Your task to perform on an android device: turn off priority inbox in the gmail app Image 0: 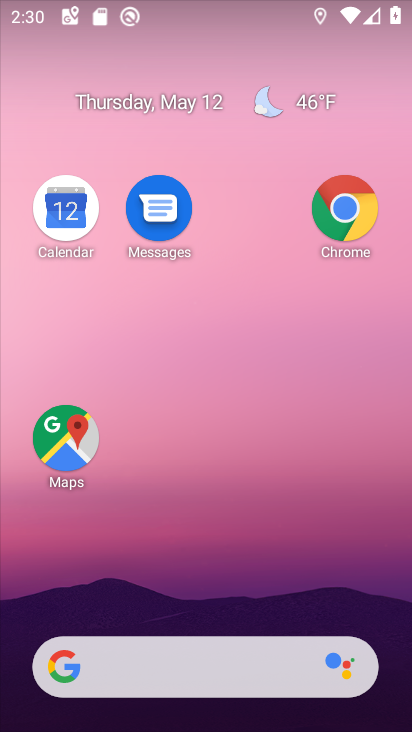
Step 0: drag from (195, 558) to (227, 335)
Your task to perform on an android device: turn off priority inbox in the gmail app Image 1: 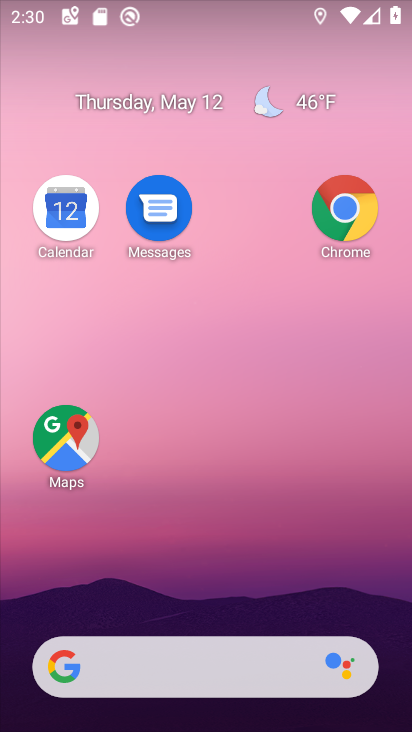
Step 1: drag from (206, 607) to (266, 62)
Your task to perform on an android device: turn off priority inbox in the gmail app Image 2: 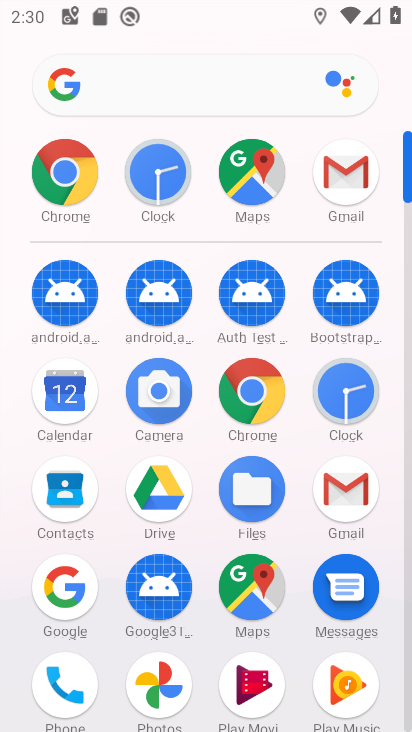
Step 2: click (330, 495)
Your task to perform on an android device: turn off priority inbox in the gmail app Image 3: 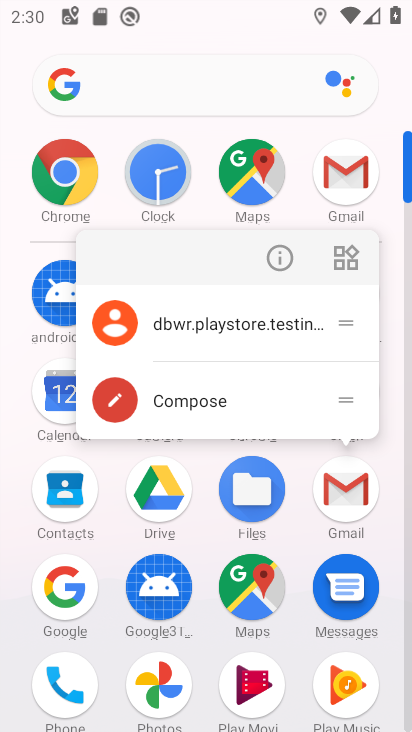
Step 3: click (291, 243)
Your task to perform on an android device: turn off priority inbox in the gmail app Image 4: 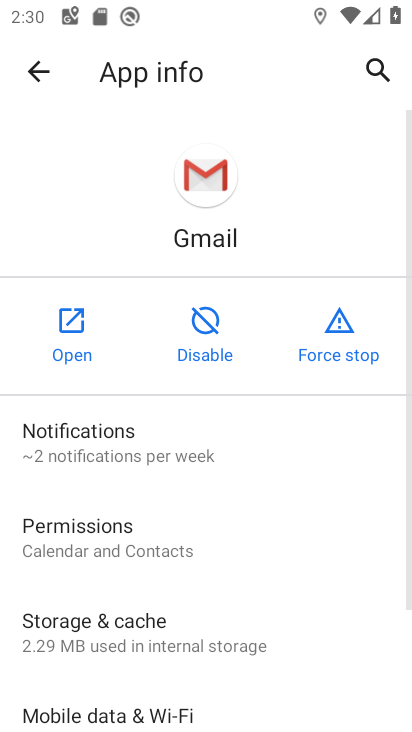
Step 4: click (57, 331)
Your task to perform on an android device: turn off priority inbox in the gmail app Image 5: 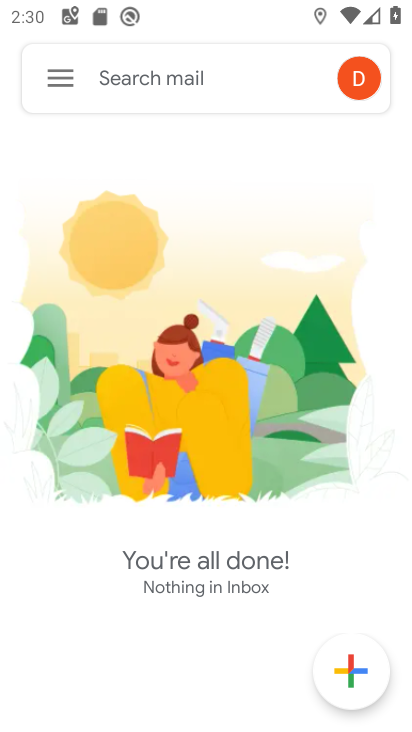
Step 5: click (63, 99)
Your task to perform on an android device: turn off priority inbox in the gmail app Image 6: 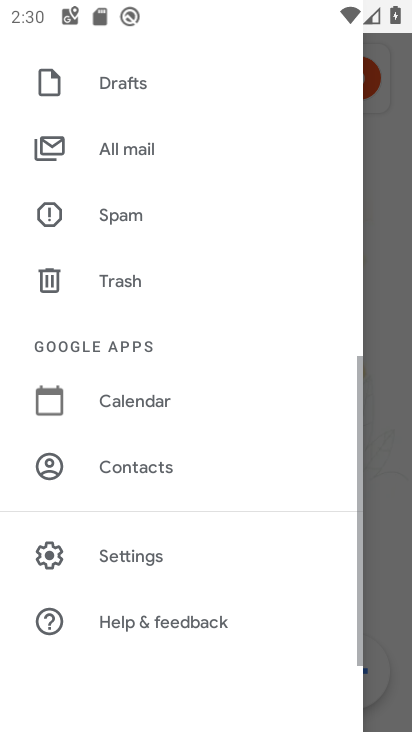
Step 6: drag from (170, 429) to (198, 94)
Your task to perform on an android device: turn off priority inbox in the gmail app Image 7: 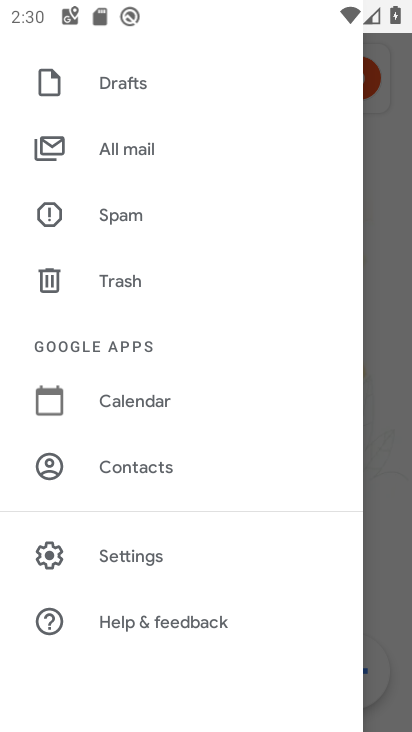
Step 7: click (122, 568)
Your task to perform on an android device: turn off priority inbox in the gmail app Image 8: 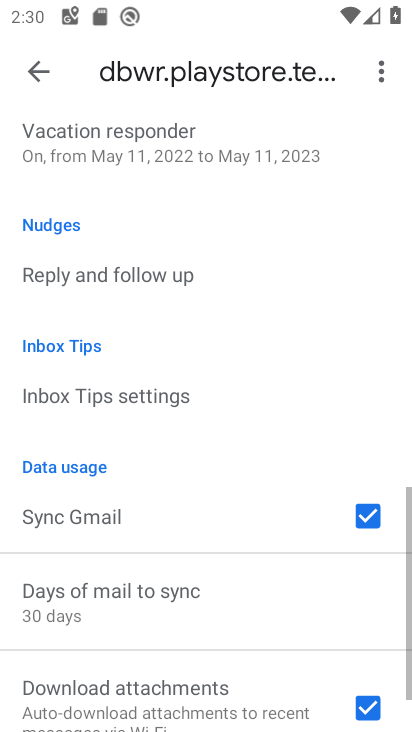
Step 8: drag from (178, 336) to (208, 624)
Your task to perform on an android device: turn off priority inbox in the gmail app Image 9: 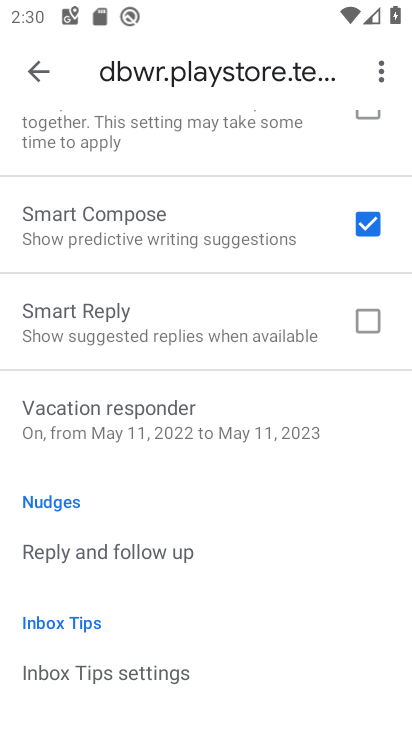
Step 9: drag from (188, 333) to (269, 730)
Your task to perform on an android device: turn off priority inbox in the gmail app Image 10: 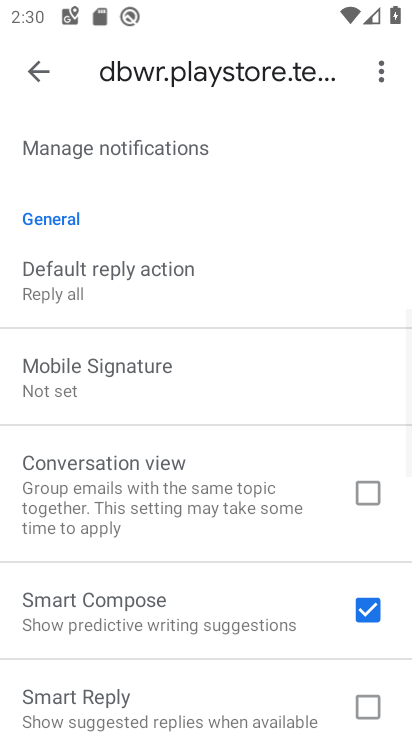
Step 10: drag from (178, 249) to (313, 723)
Your task to perform on an android device: turn off priority inbox in the gmail app Image 11: 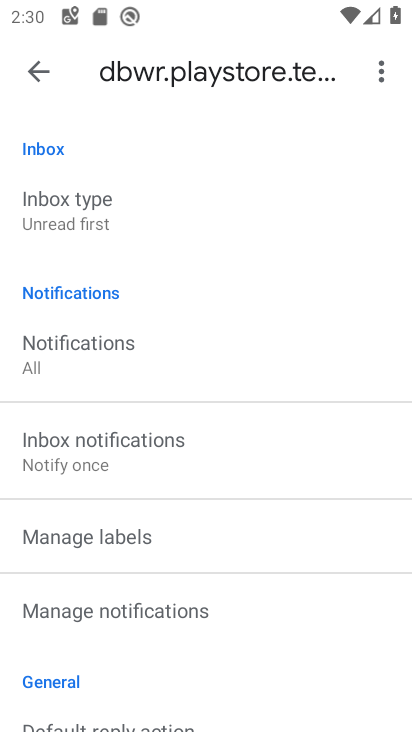
Step 11: click (129, 214)
Your task to perform on an android device: turn off priority inbox in the gmail app Image 12: 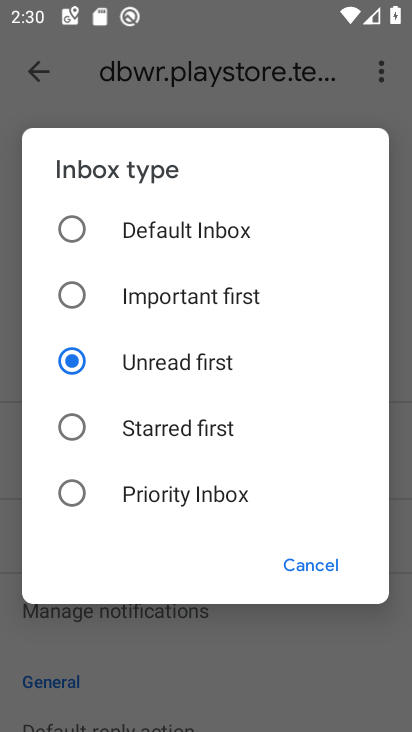
Step 12: click (97, 475)
Your task to perform on an android device: turn off priority inbox in the gmail app Image 13: 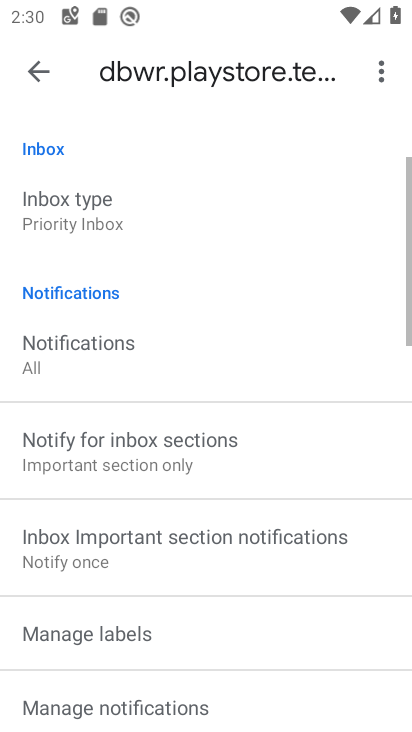
Step 13: drag from (141, 358) to (259, 716)
Your task to perform on an android device: turn off priority inbox in the gmail app Image 14: 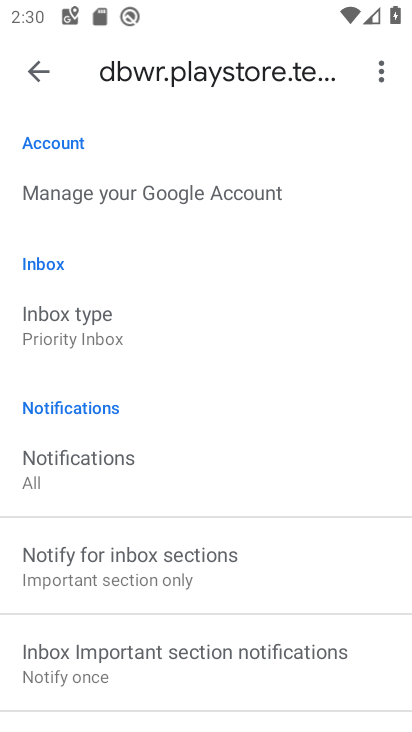
Step 14: click (113, 339)
Your task to perform on an android device: turn off priority inbox in the gmail app Image 15: 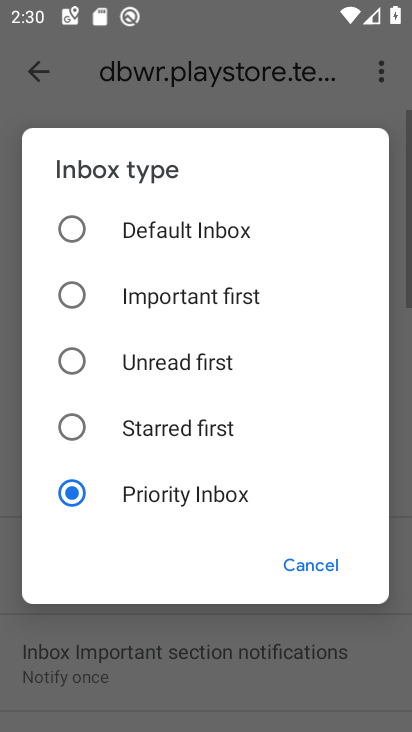
Step 15: click (163, 249)
Your task to perform on an android device: turn off priority inbox in the gmail app Image 16: 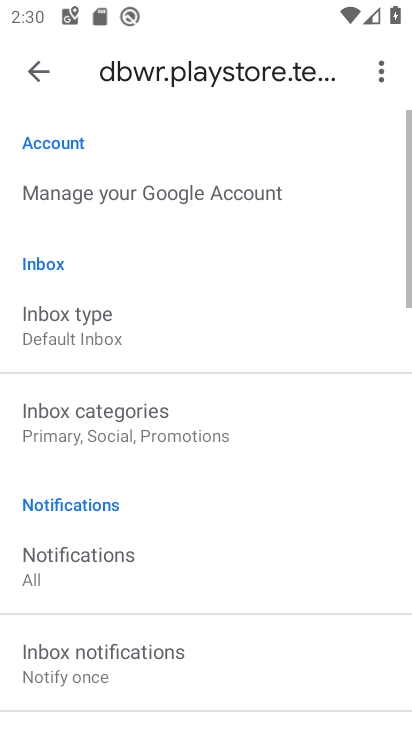
Step 16: task complete